Your task to perform on an android device: Go to Amazon Image 0: 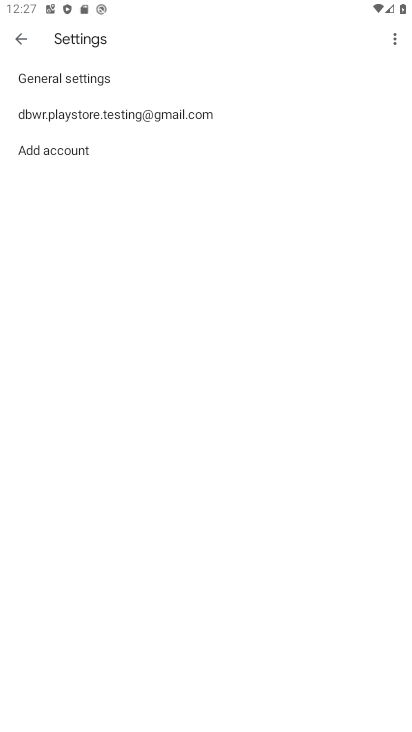
Step 0: press home button
Your task to perform on an android device: Go to Amazon Image 1: 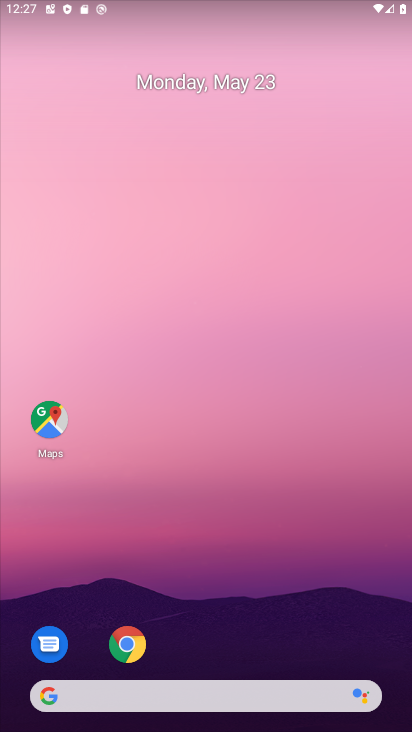
Step 1: click (126, 651)
Your task to perform on an android device: Go to Amazon Image 2: 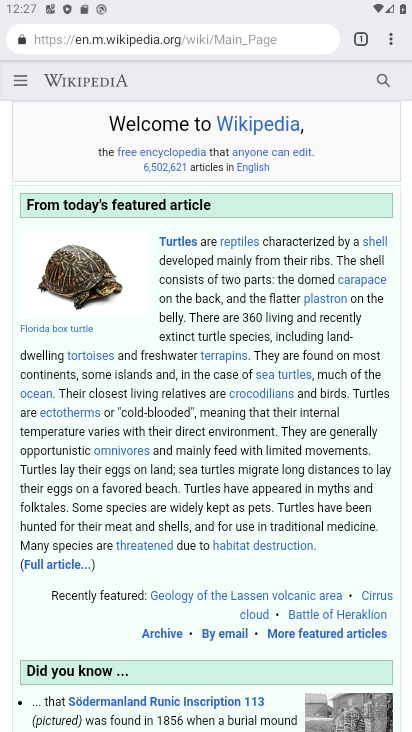
Step 2: click (360, 37)
Your task to perform on an android device: Go to Amazon Image 3: 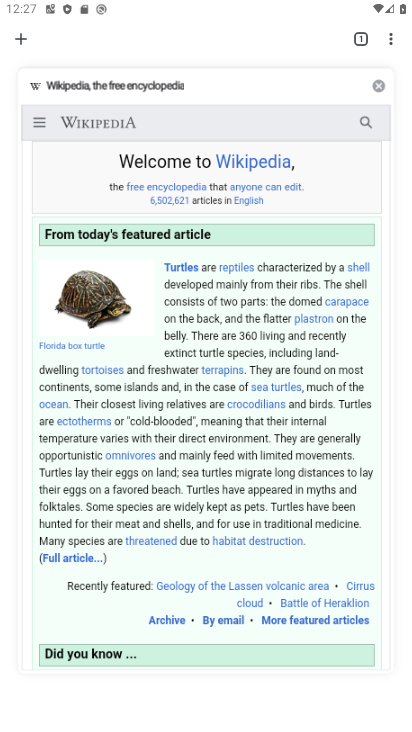
Step 3: click (363, 38)
Your task to perform on an android device: Go to Amazon Image 4: 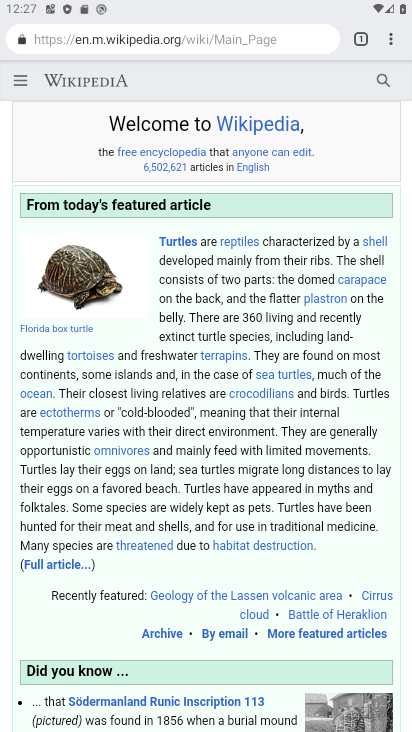
Step 4: click (369, 39)
Your task to perform on an android device: Go to Amazon Image 5: 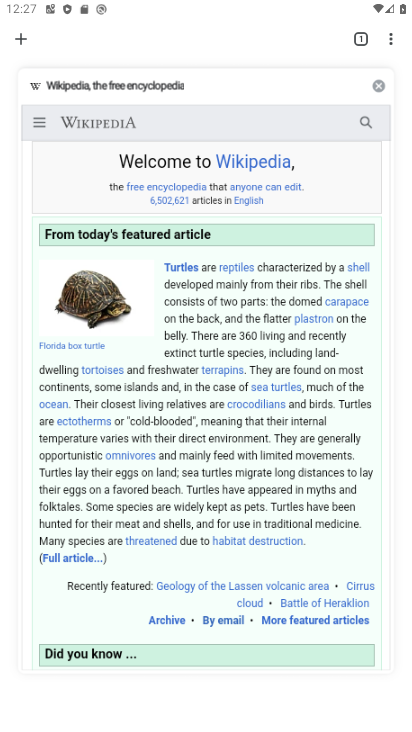
Step 5: click (13, 36)
Your task to perform on an android device: Go to Amazon Image 6: 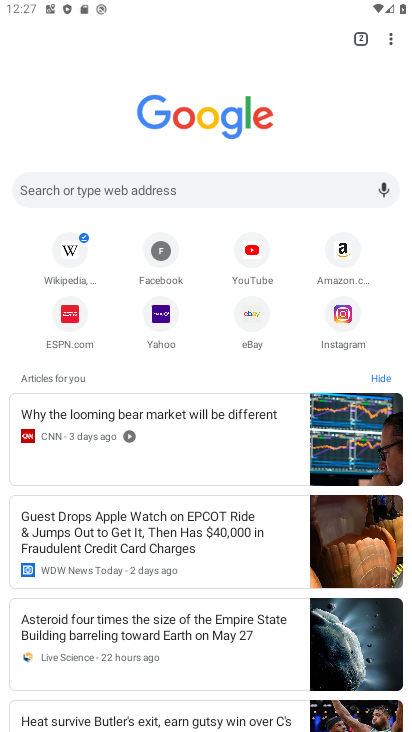
Step 6: click (341, 253)
Your task to perform on an android device: Go to Amazon Image 7: 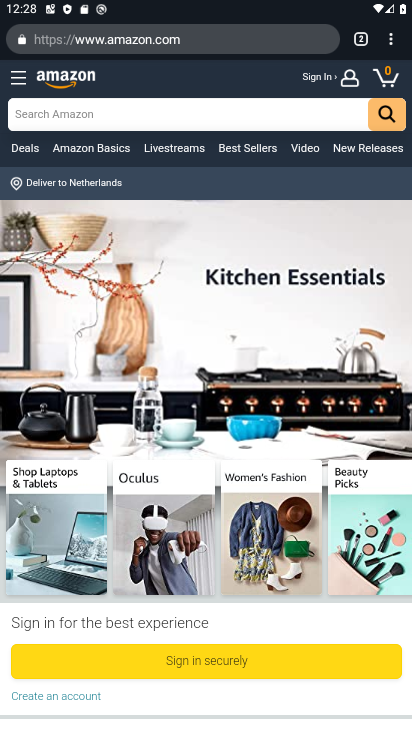
Step 7: task complete